Your task to perform on an android device: Go to privacy settings Image 0: 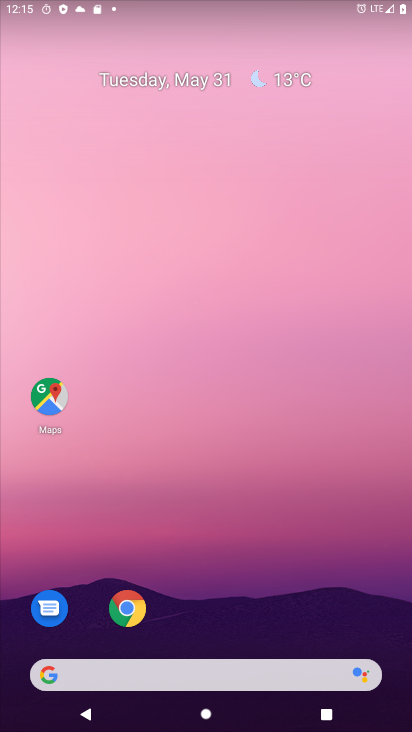
Step 0: drag from (263, 642) to (284, 5)
Your task to perform on an android device: Go to privacy settings Image 1: 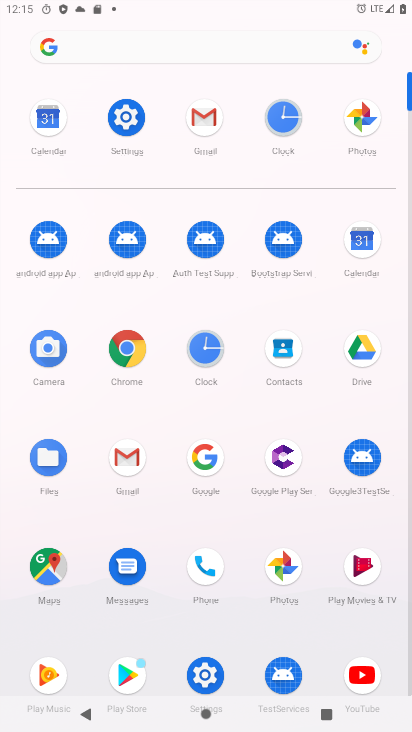
Step 1: click (123, 121)
Your task to perform on an android device: Go to privacy settings Image 2: 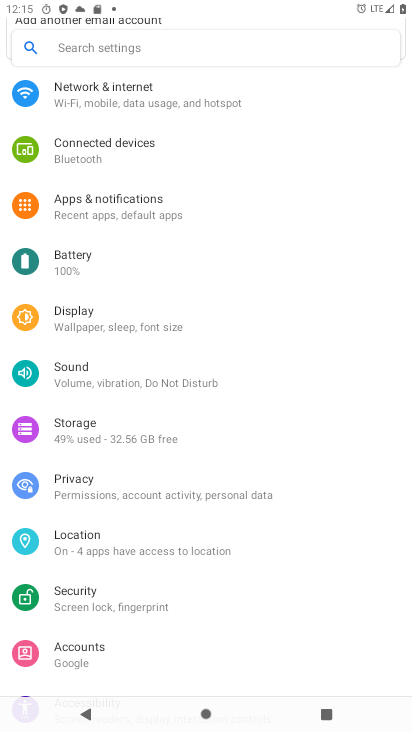
Step 2: click (67, 488)
Your task to perform on an android device: Go to privacy settings Image 3: 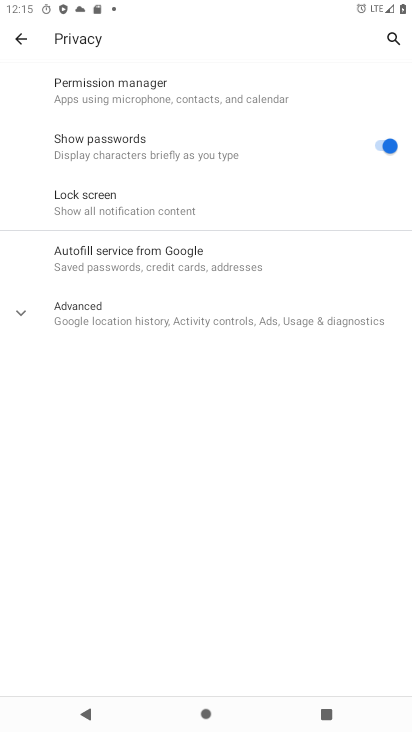
Step 3: task complete